Your task to perform on an android device: open app "Cash App" Image 0: 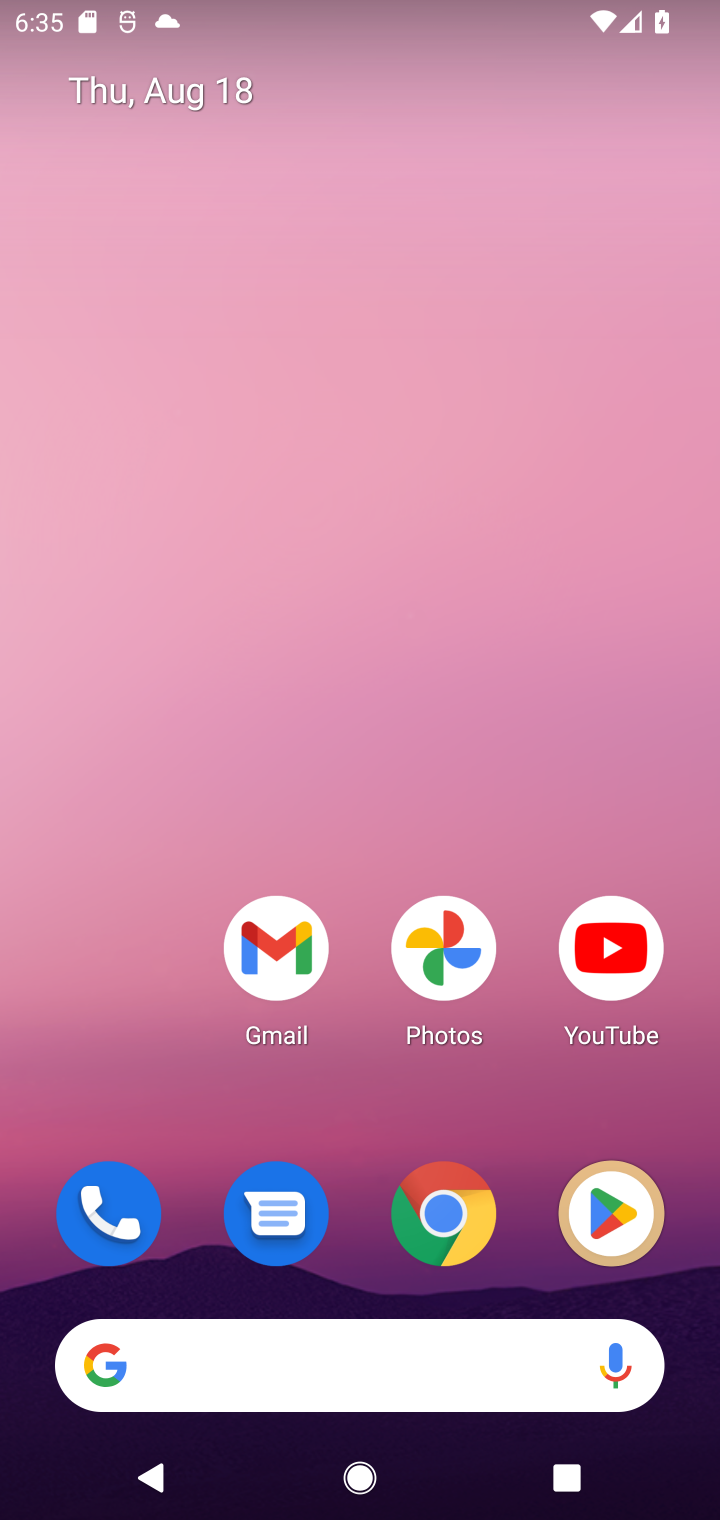
Step 0: press home button
Your task to perform on an android device: open app "Cash App" Image 1: 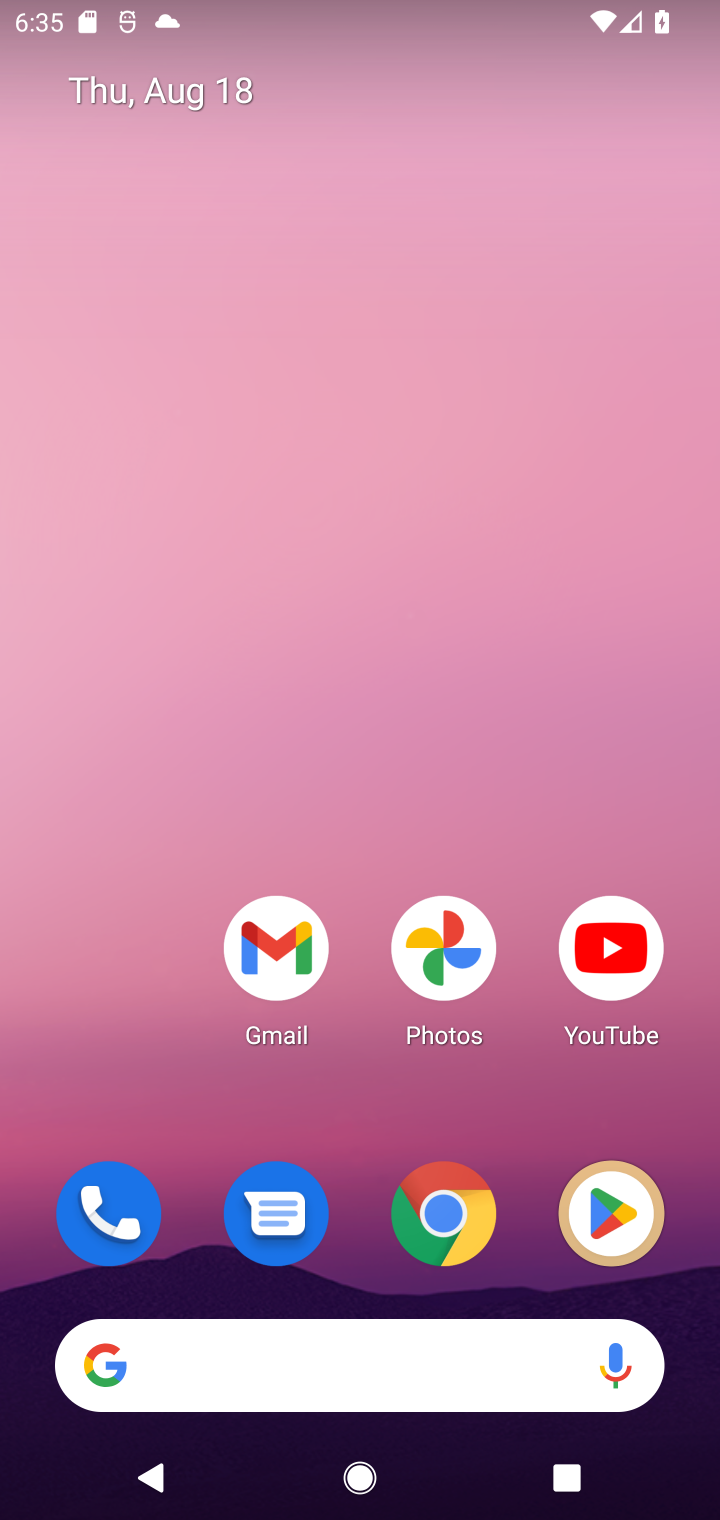
Step 1: press home button
Your task to perform on an android device: open app "Cash App" Image 2: 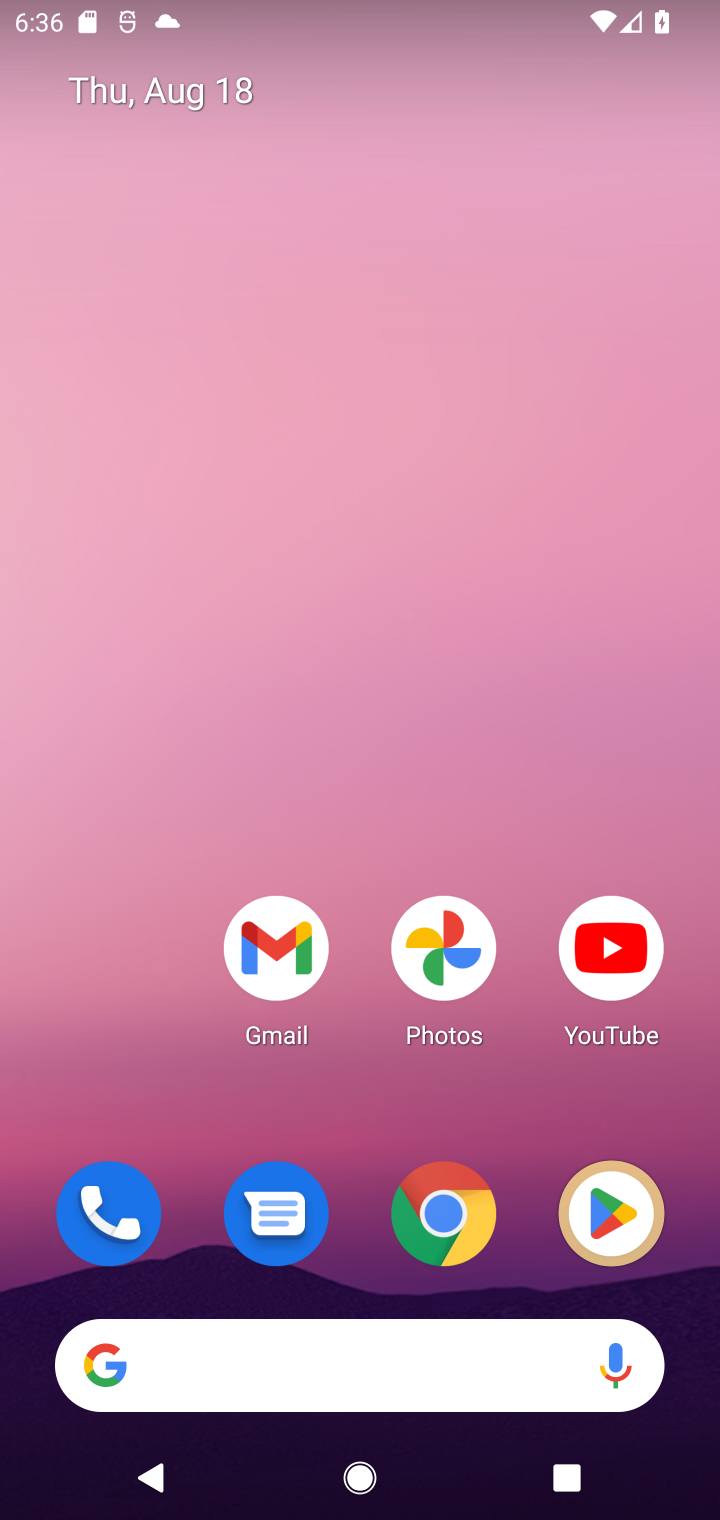
Step 2: click (604, 1205)
Your task to perform on an android device: open app "Cash App" Image 3: 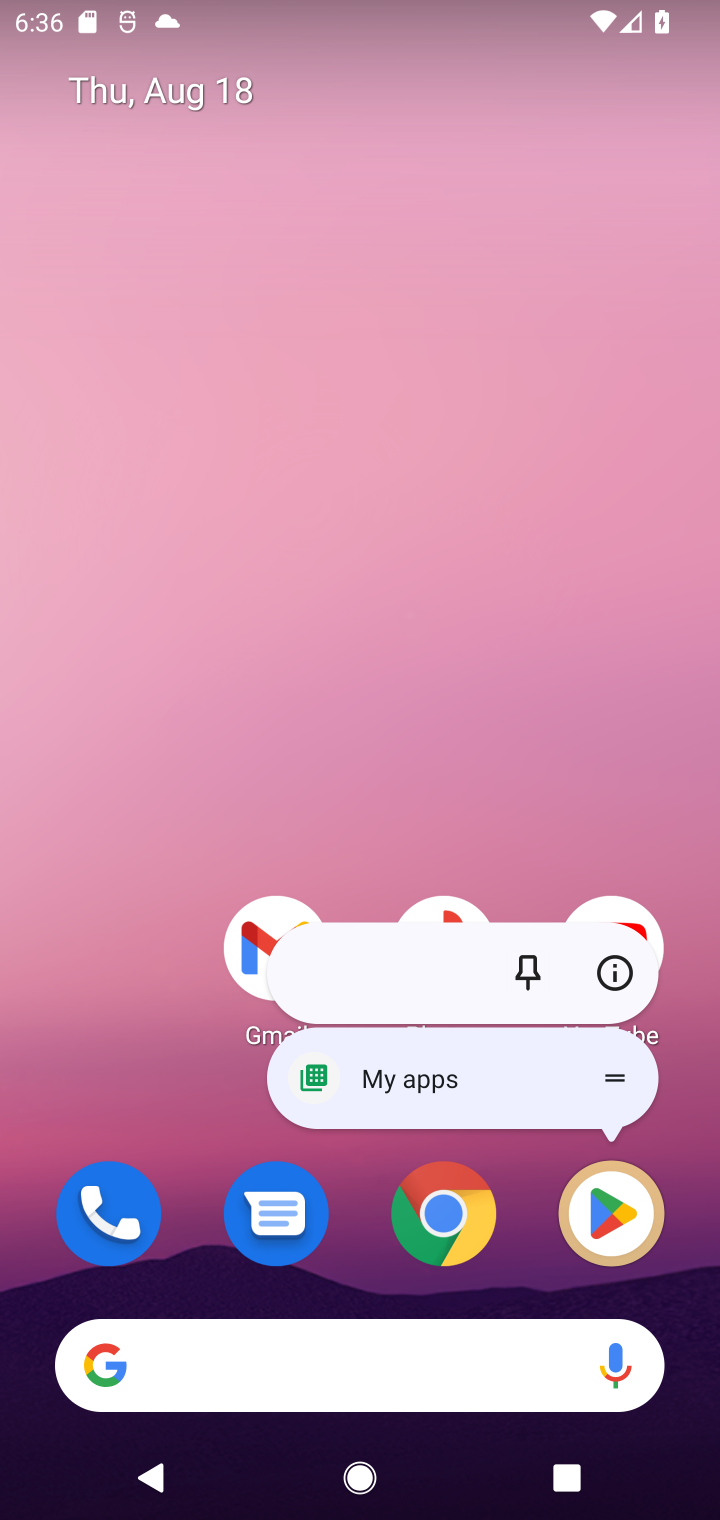
Step 3: click (604, 1205)
Your task to perform on an android device: open app "Cash App" Image 4: 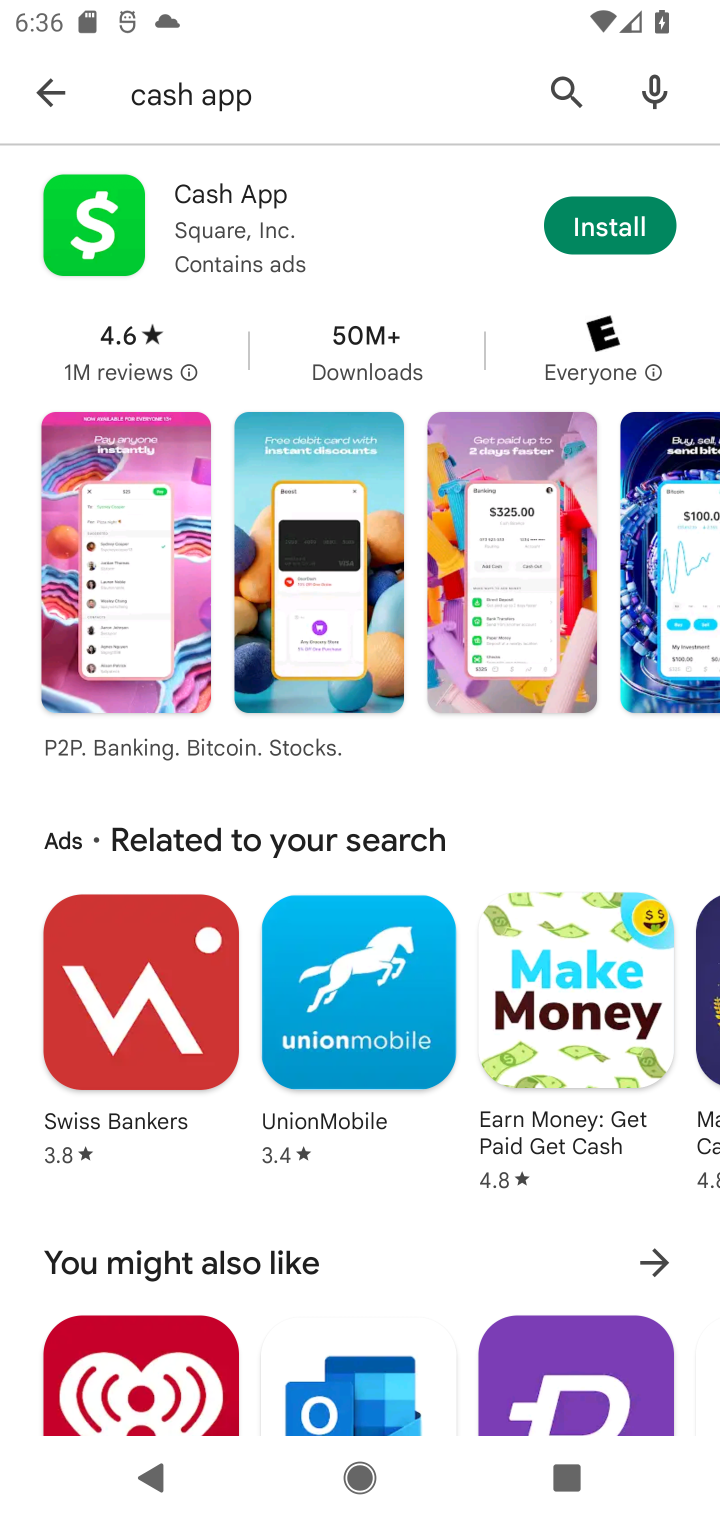
Step 4: task complete